Your task to perform on an android device: toggle show notifications on the lock screen Image 0: 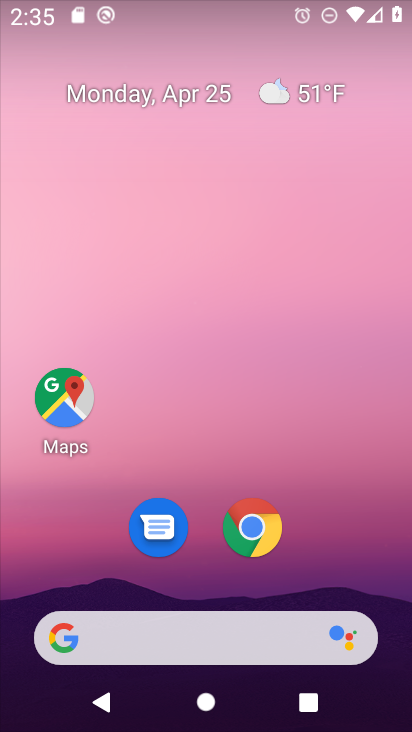
Step 0: click (279, 47)
Your task to perform on an android device: toggle show notifications on the lock screen Image 1: 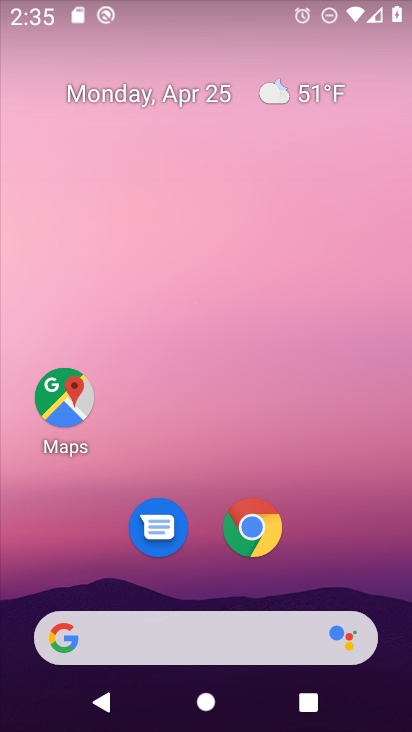
Step 1: drag from (4, 614) to (12, 122)
Your task to perform on an android device: toggle show notifications on the lock screen Image 2: 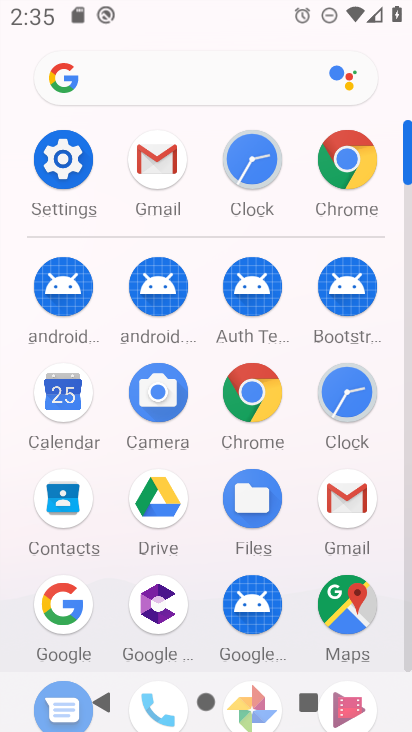
Step 2: drag from (8, 550) to (18, 288)
Your task to perform on an android device: toggle show notifications on the lock screen Image 3: 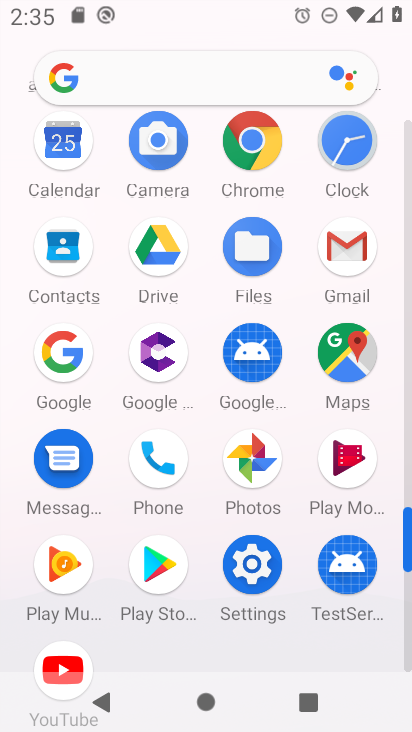
Step 3: drag from (0, 499) to (0, 349)
Your task to perform on an android device: toggle show notifications on the lock screen Image 4: 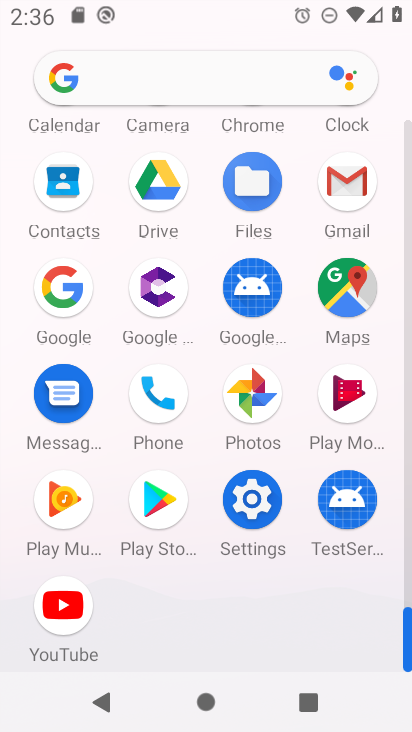
Step 4: click (256, 497)
Your task to perform on an android device: toggle show notifications on the lock screen Image 5: 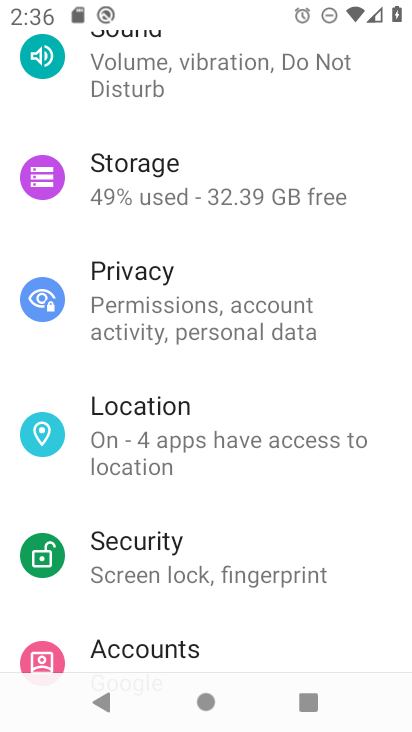
Step 5: drag from (286, 493) to (295, 163)
Your task to perform on an android device: toggle show notifications on the lock screen Image 6: 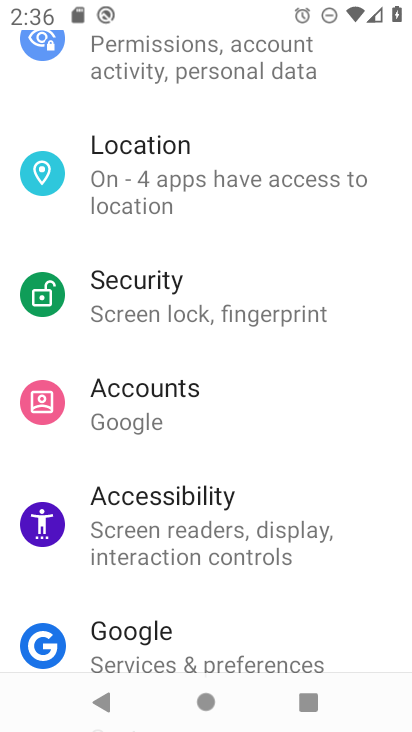
Step 6: drag from (282, 489) to (262, 176)
Your task to perform on an android device: toggle show notifications on the lock screen Image 7: 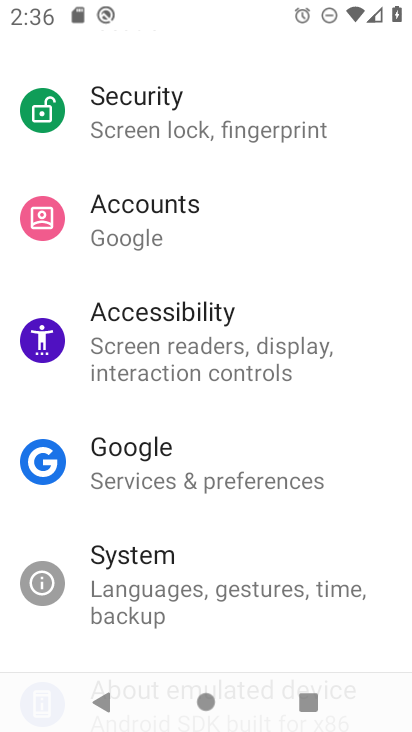
Step 7: drag from (305, 451) to (324, 118)
Your task to perform on an android device: toggle show notifications on the lock screen Image 8: 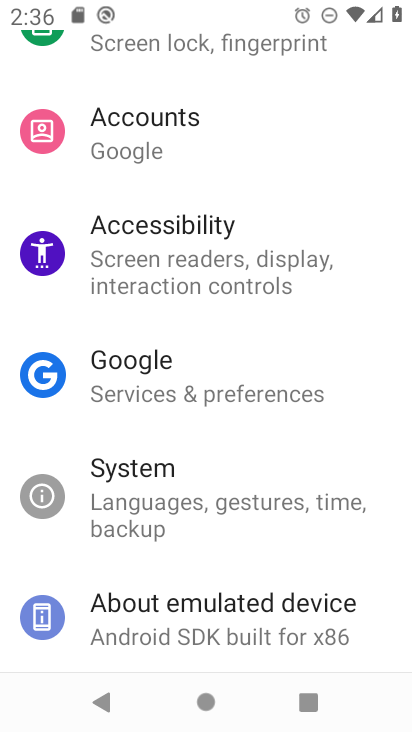
Step 8: drag from (309, 146) to (284, 504)
Your task to perform on an android device: toggle show notifications on the lock screen Image 9: 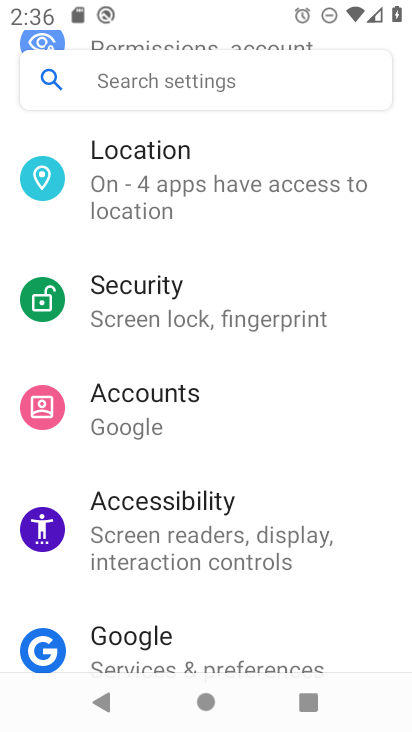
Step 9: drag from (282, 184) to (274, 538)
Your task to perform on an android device: toggle show notifications on the lock screen Image 10: 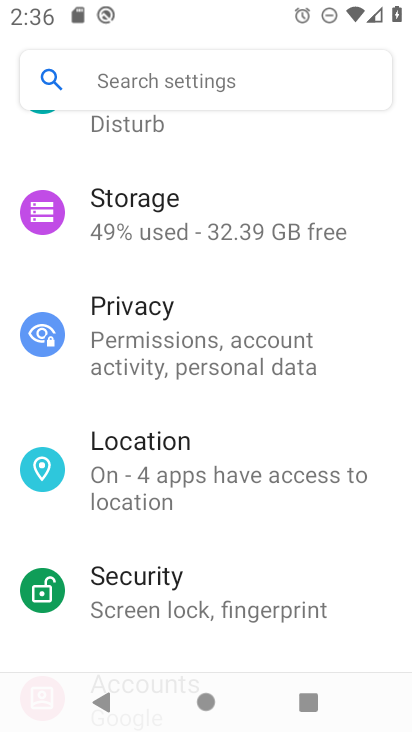
Step 10: drag from (252, 216) to (247, 582)
Your task to perform on an android device: toggle show notifications on the lock screen Image 11: 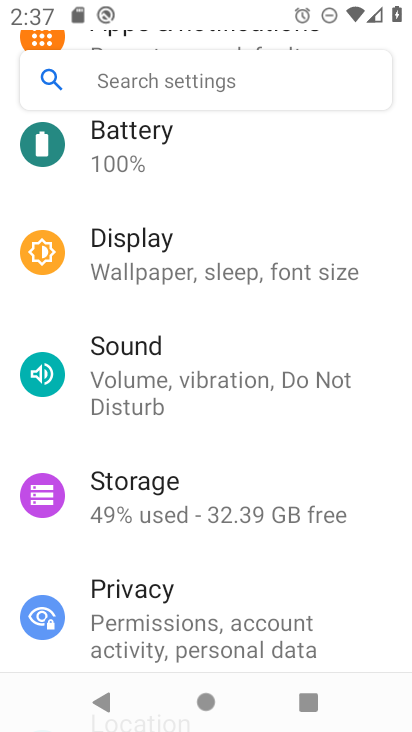
Step 11: drag from (258, 205) to (238, 579)
Your task to perform on an android device: toggle show notifications on the lock screen Image 12: 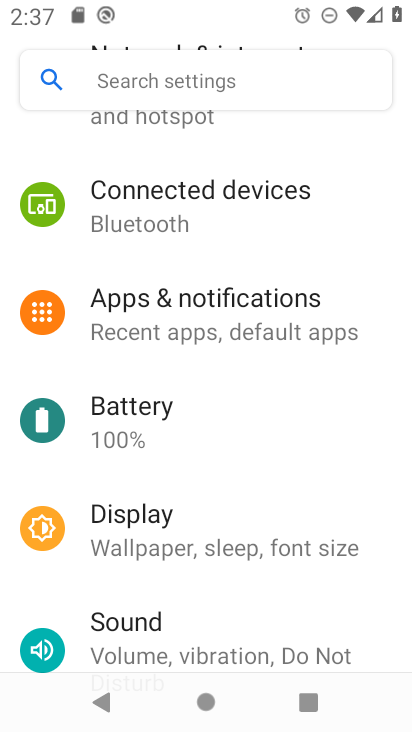
Step 12: click (213, 316)
Your task to perform on an android device: toggle show notifications on the lock screen Image 13: 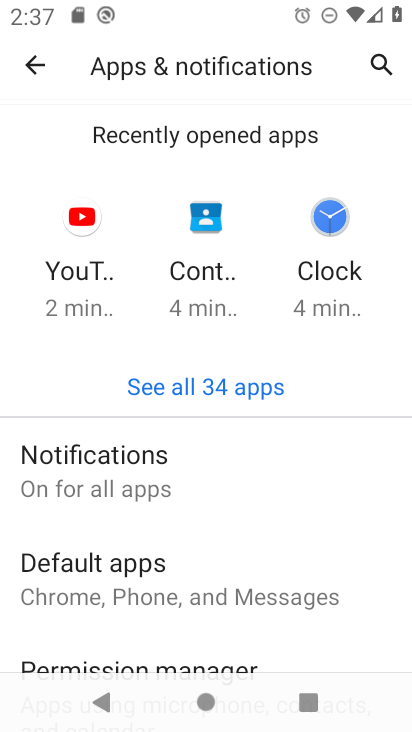
Step 13: click (139, 458)
Your task to perform on an android device: toggle show notifications on the lock screen Image 14: 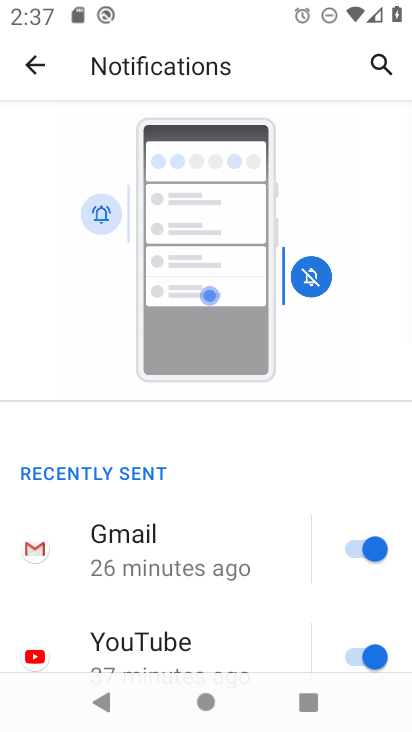
Step 14: drag from (195, 592) to (241, 271)
Your task to perform on an android device: toggle show notifications on the lock screen Image 15: 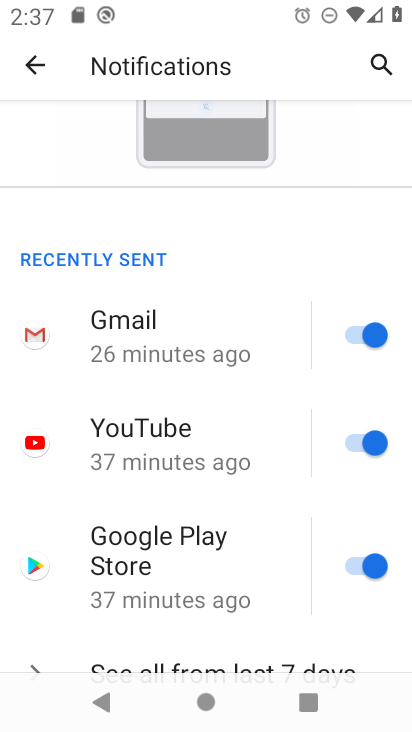
Step 15: drag from (165, 571) to (221, 138)
Your task to perform on an android device: toggle show notifications on the lock screen Image 16: 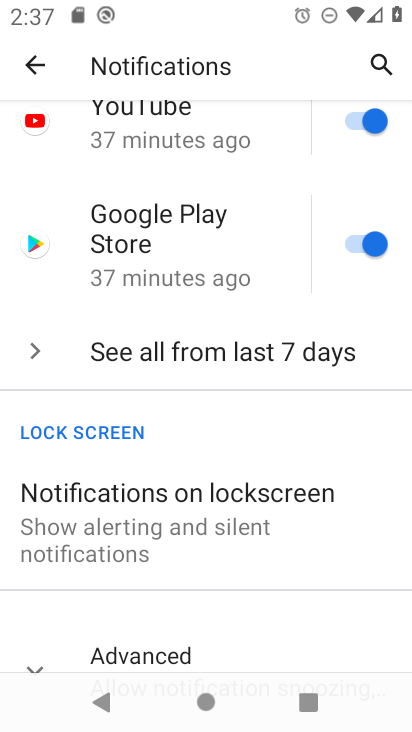
Step 16: drag from (197, 607) to (221, 147)
Your task to perform on an android device: toggle show notifications on the lock screen Image 17: 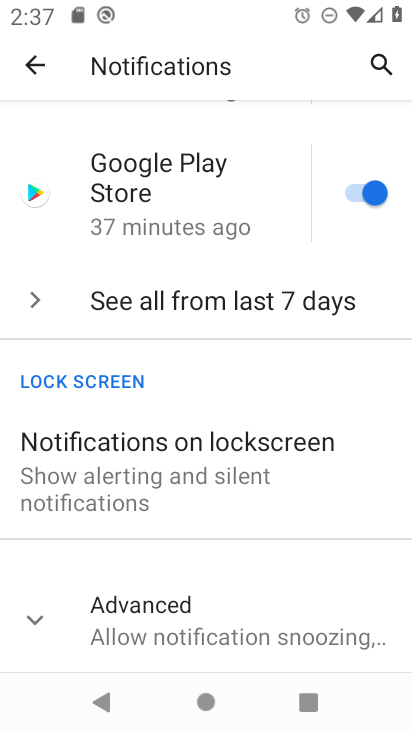
Step 17: click (252, 461)
Your task to perform on an android device: toggle show notifications on the lock screen Image 18: 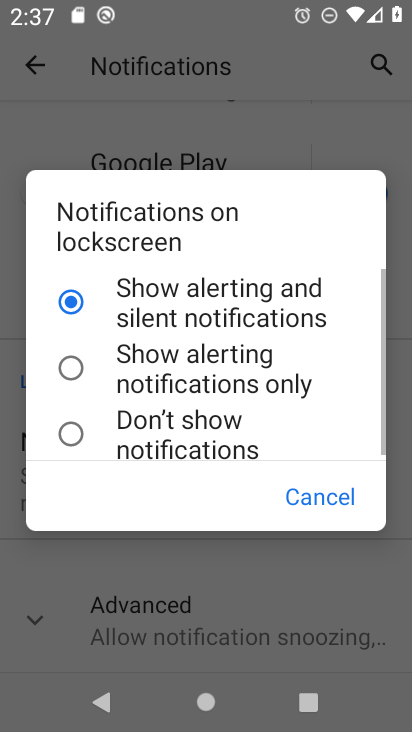
Step 18: click (177, 318)
Your task to perform on an android device: toggle show notifications on the lock screen Image 19: 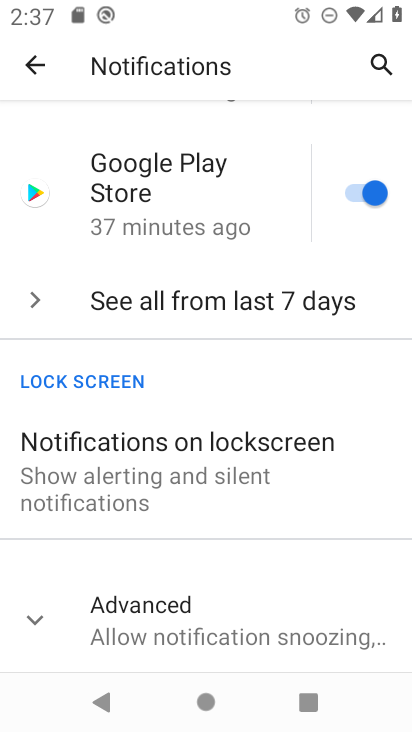
Step 19: click (195, 475)
Your task to perform on an android device: toggle show notifications on the lock screen Image 20: 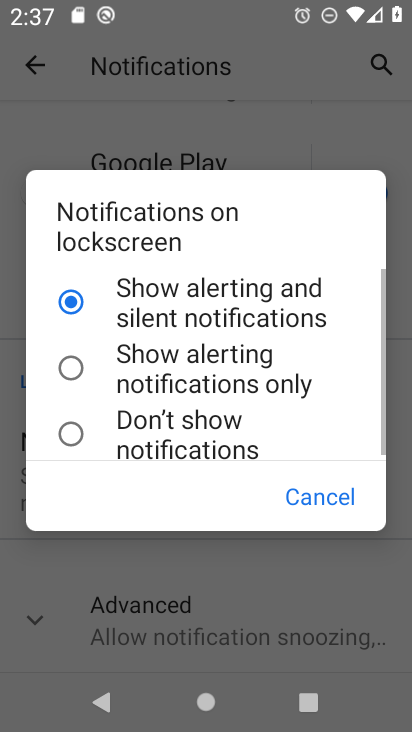
Step 20: click (173, 360)
Your task to perform on an android device: toggle show notifications on the lock screen Image 21: 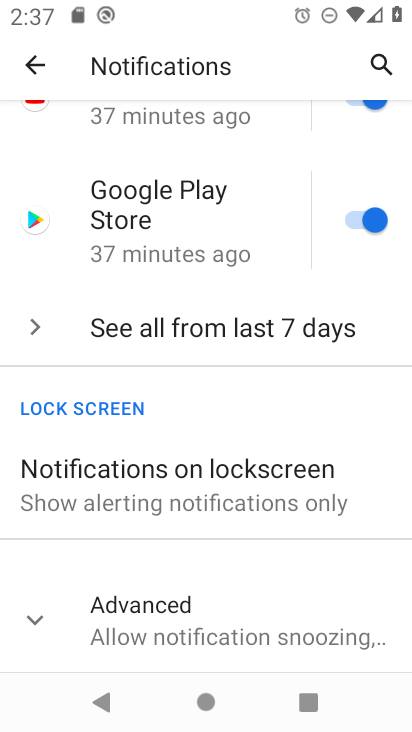
Step 21: task complete